Your task to perform on an android device: Turn on the flashlight Image 0: 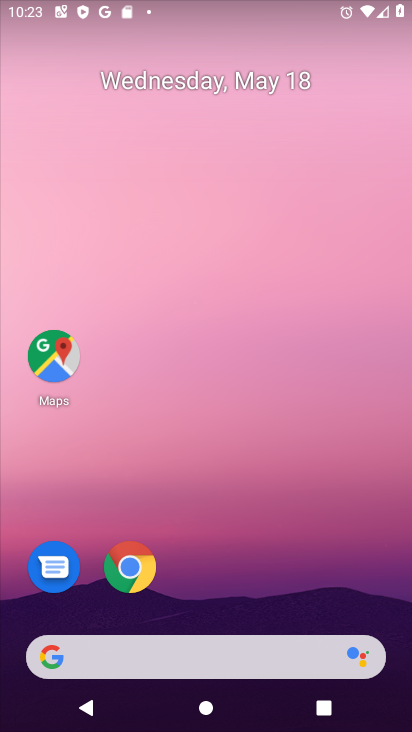
Step 0: drag from (115, 9) to (110, 372)
Your task to perform on an android device: Turn on the flashlight Image 1: 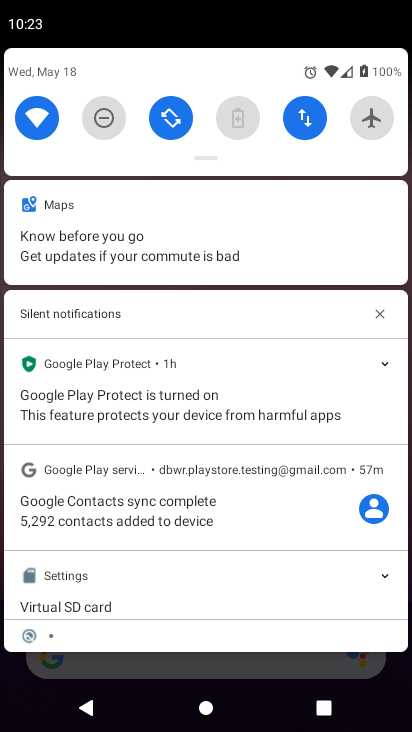
Step 1: task complete